Your task to perform on an android device: Go to location settings Image 0: 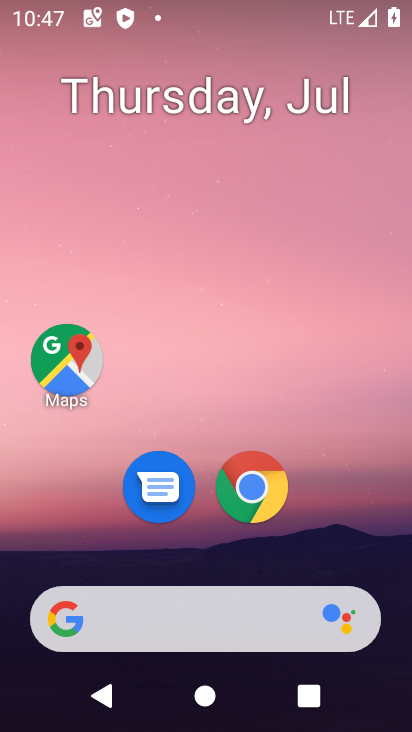
Step 0: drag from (194, 540) to (317, 19)
Your task to perform on an android device: Go to location settings Image 1: 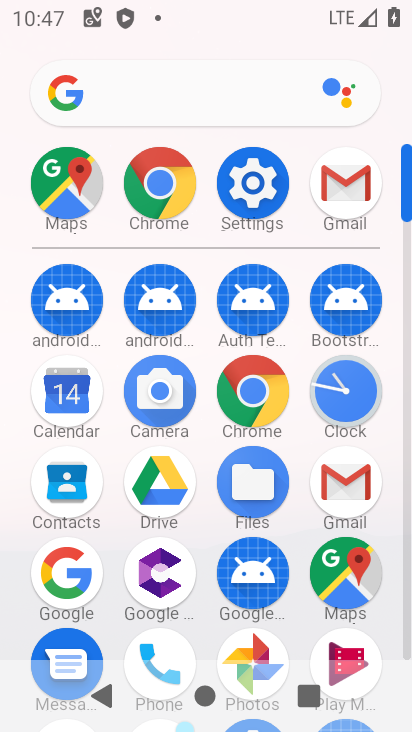
Step 1: click (258, 184)
Your task to perform on an android device: Go to location settings Image 2: 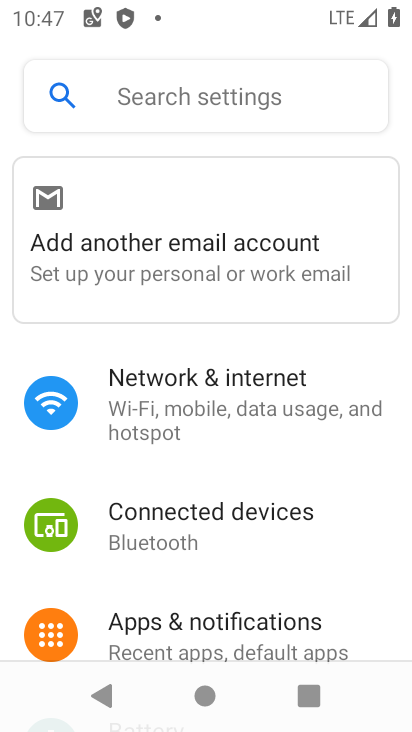
Step 2: drag from (173, 612) to (246, 108)
Your task to perform on an android device: Go to location settings Image 3: 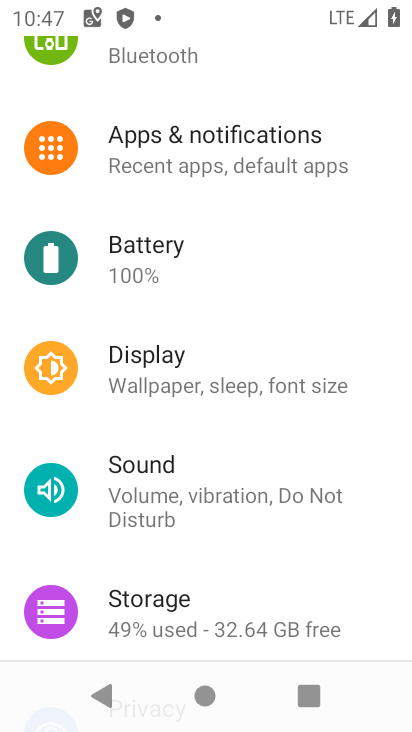
Step 3: drag from (183, 624) to (279, 96)
Your task to perform on an android device: Go to location settings Image 4: 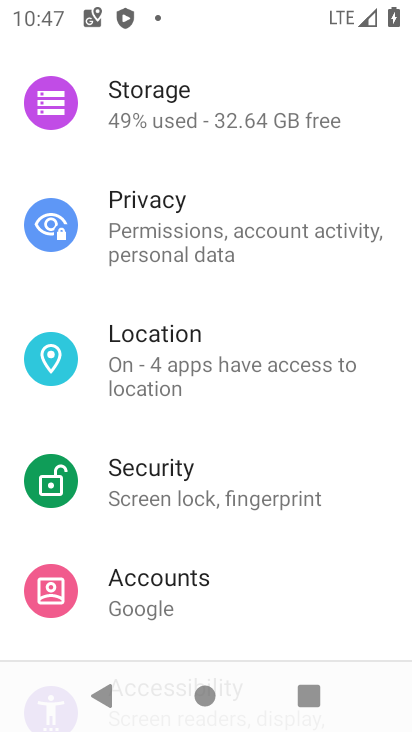
Step 4: click (188, 357)
Your task to perform on an android device: Go to location settings Image 5: 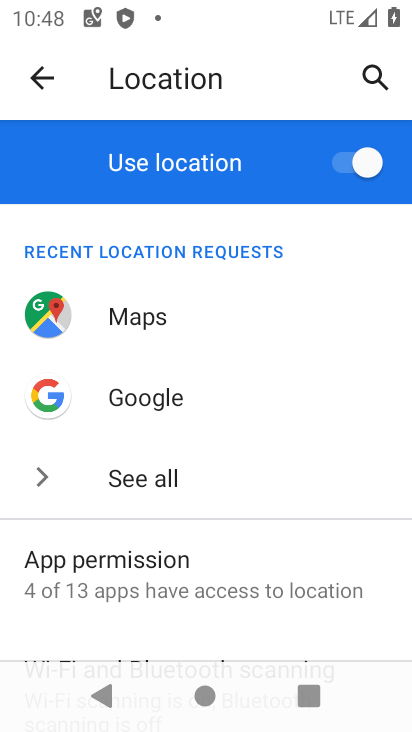
Step 5: task complete